Your task to perform on an android device: set default search engine in the chrome app Image 0: 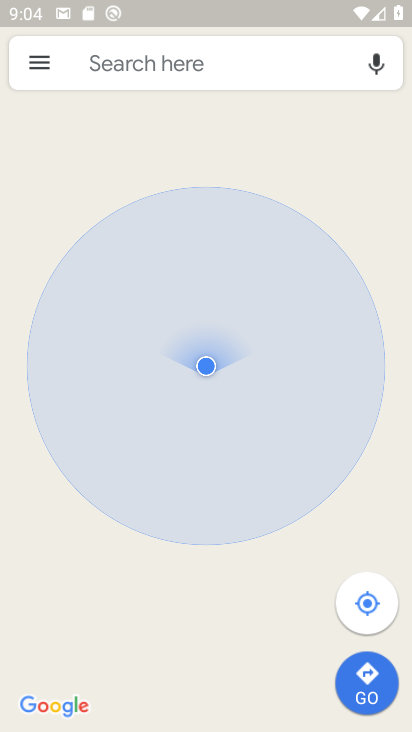
Step 0: press home button
Your task to perform on an android device: set default search engine in the chrome app Image 1: 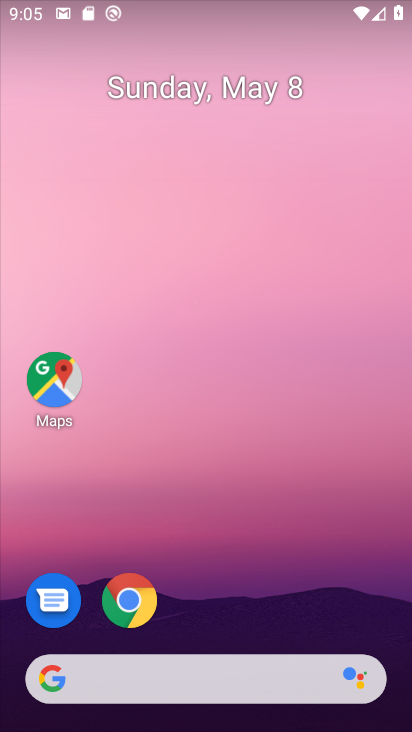
Step 1: click (137, 611)
Your task to perform on an android device: set default search engine in the chrome app Image 2: 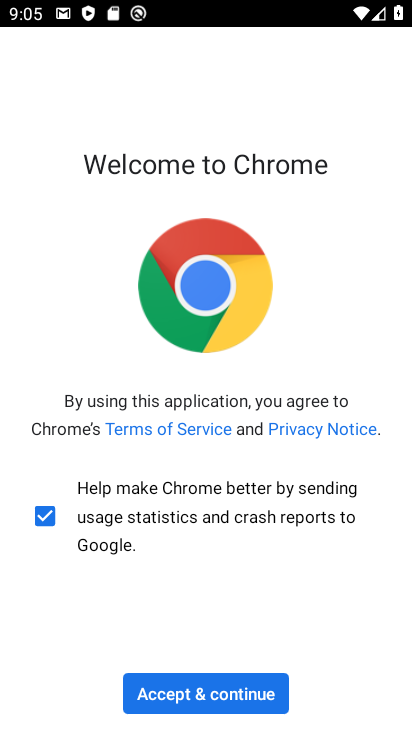
Step 2: click (152, 681)
Your task to perform on an android device: set default search engine in the chrome app Image 3: 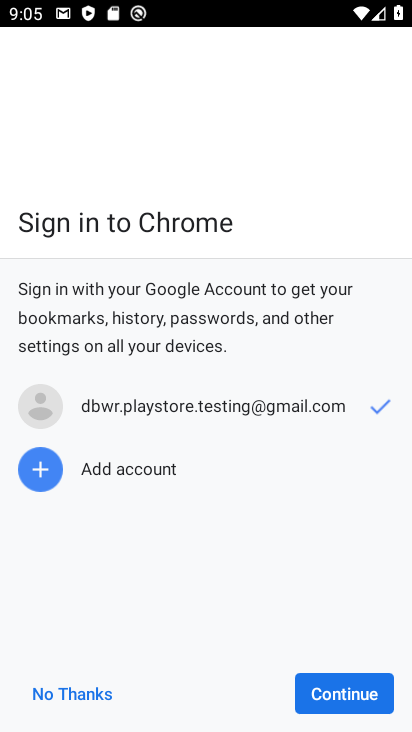
Step 3: click (106, 691)
Your task to perform on an android device: set default search engine in the chrome app Image 4: 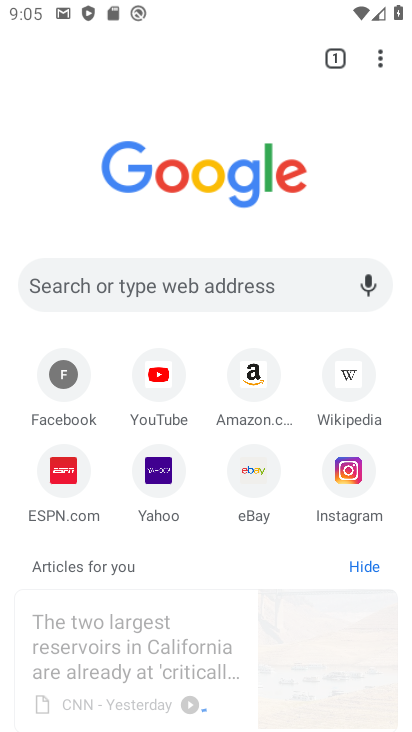
Step 4: drag from (378, 61) to (181, 488)
Your task to perform on an android device: set default search engine in the chrome app Image 5: 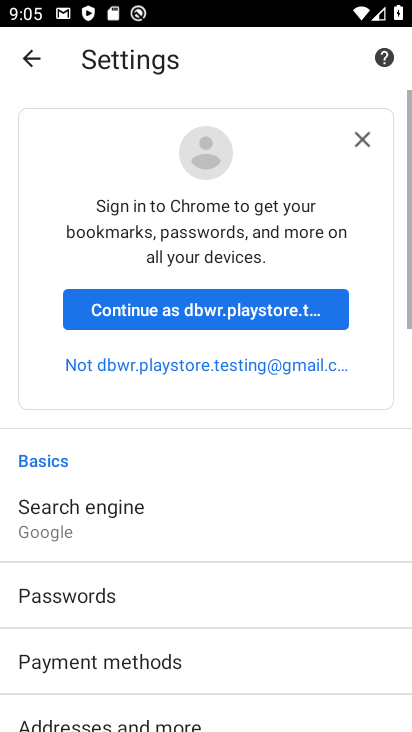
Step 5: click (77, 517)
Your task to perform on an android device: set default search engine in the chrome app Image 6: 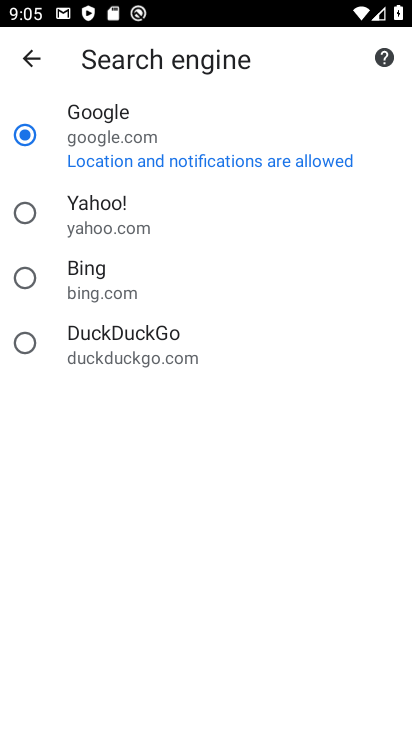
Step 6: click (13, 218)
Your task to perform on an android device: set default search engine in the chrome app Image 7: 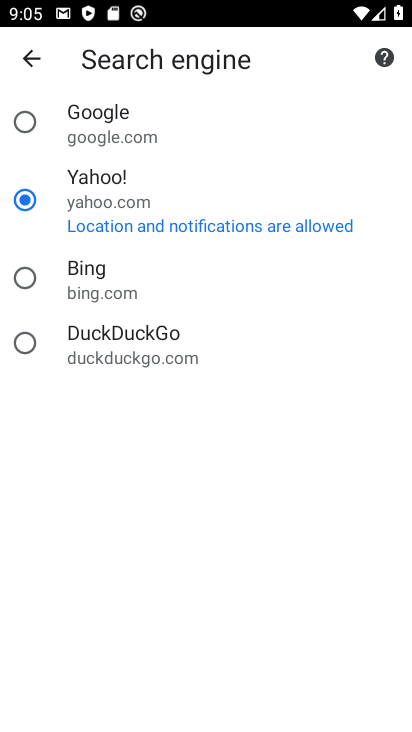
Step 7: task complete